Your task to perform on an android device: open a new tab in the chrome app Image 0: 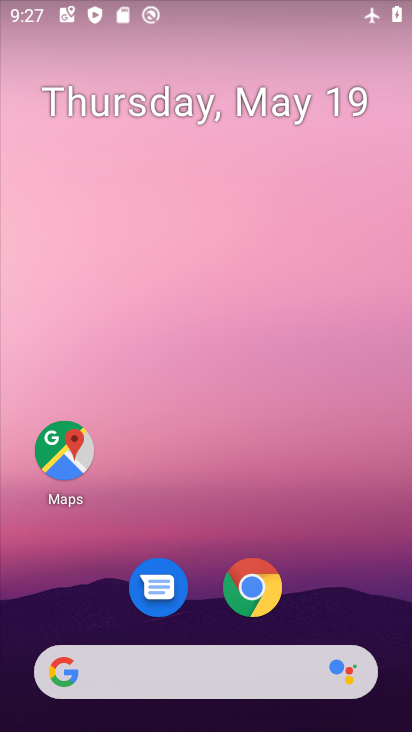
Step 0: click (262, 608)
Your task to perform on an android device: open a new tab in the chrome app Image 1: 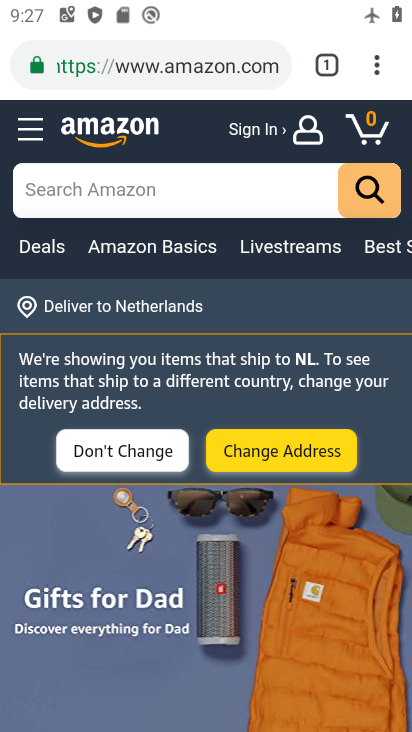
Step 1: task complete